Your task to perform on an android device: Search for sushi restaurants on Maps Image 0: 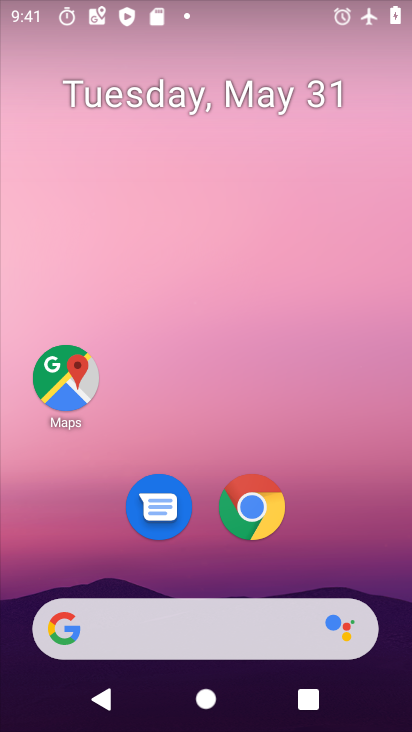
Step 0: click (73, 377)
Your task to perform on an android device: Search for sushi restaurants on Maps Image 1: 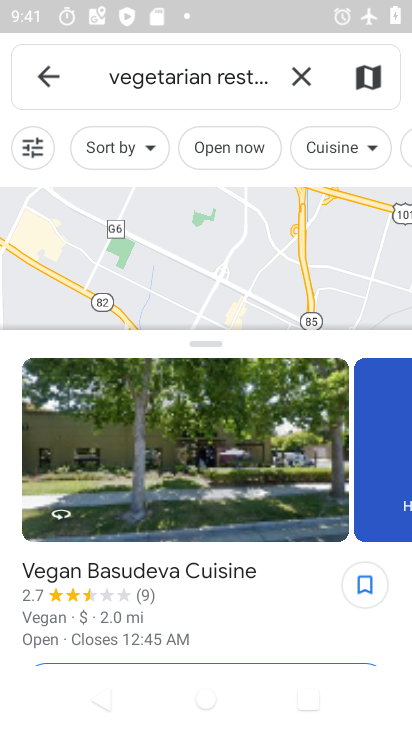
Step 1: click (293, 79)
Your task to perform on an android device: Search for sushi restaurants on Maps Image 2: 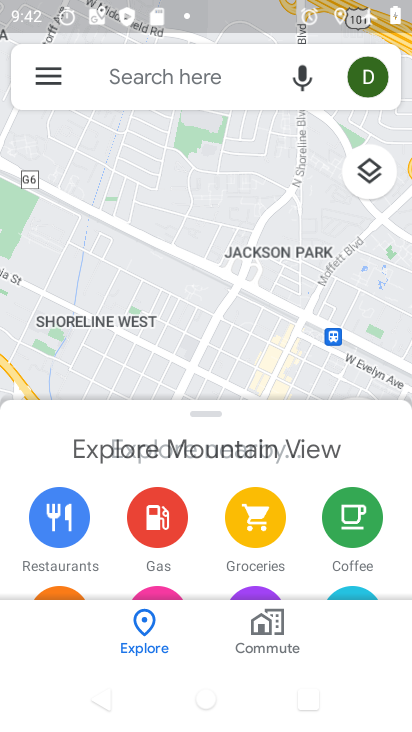
Step 2: click (97, 76)
Your task to perform on an android device: Search for sushi restaurants on Maps Image 3: 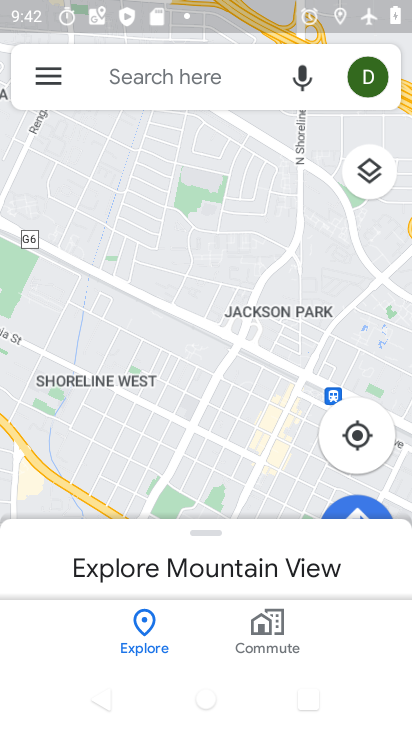
Step 3: click (111, 76)
Your task to perform on an android device: Search for sushi restaurants on Maps Image 4: 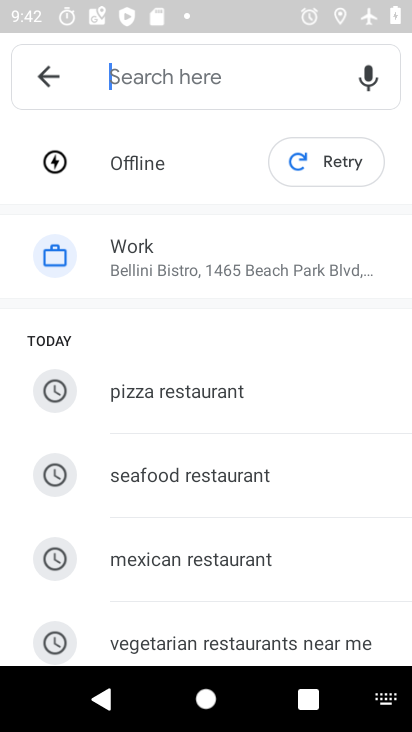
Step 4: type "sushi restaurants"
Your task to perform on an android device: Search for sushi restaurants on Maps Image 5: 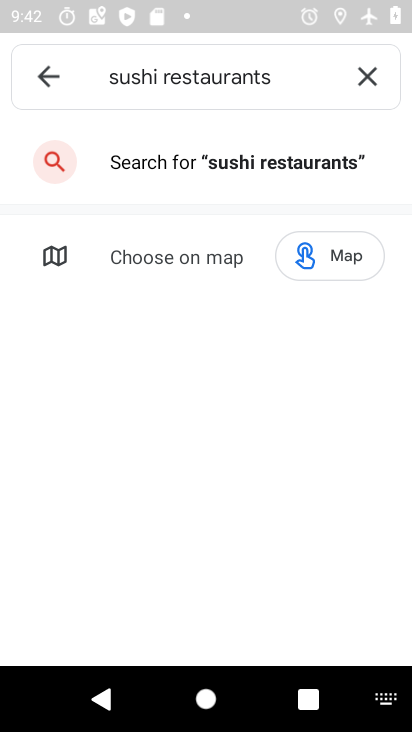
Step 5: click (295, 162)
Your task to perform on an android device: Search for sushi restaurants on Maps Image 6: 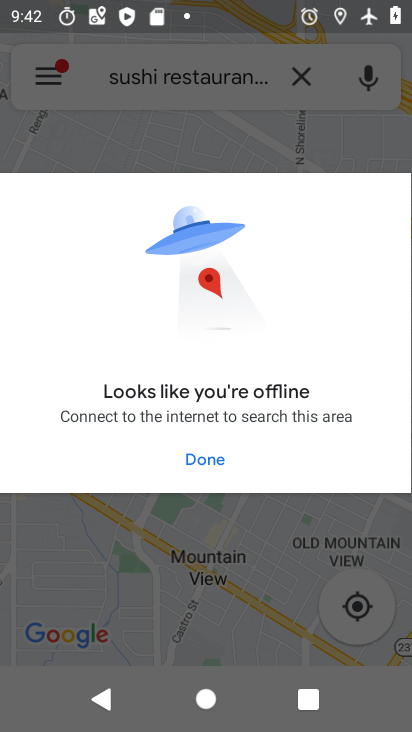
Step 6: task complete